Your task to perform on an android device: check storage Image 0: 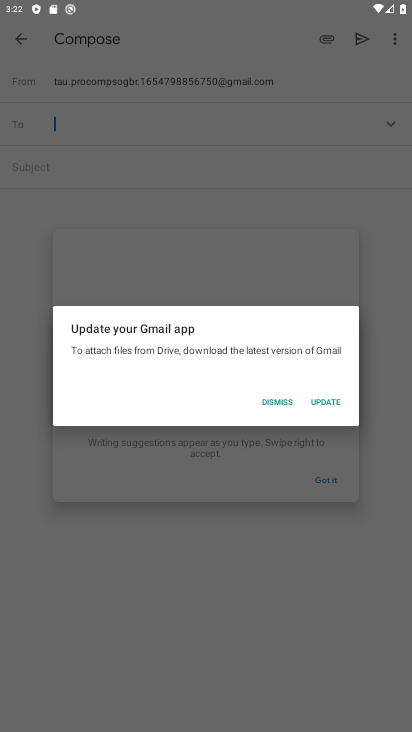
Step 0: press home button
Your task to perform on an android device: check storage Image 1: 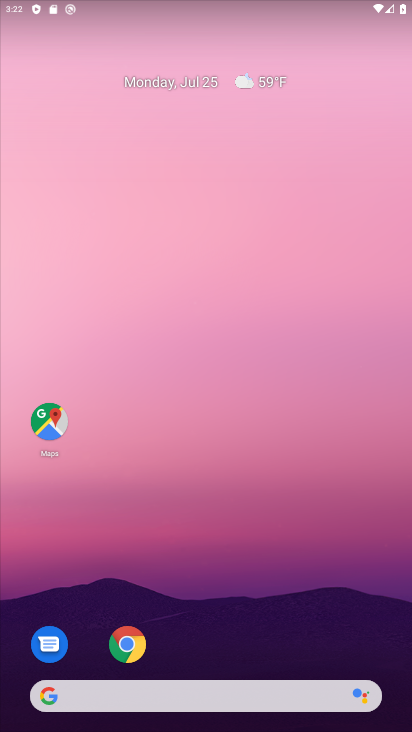
Step 1: drag from (253, 674) to (248, 212)
Your task to perform on an android device: check storage Image 2: 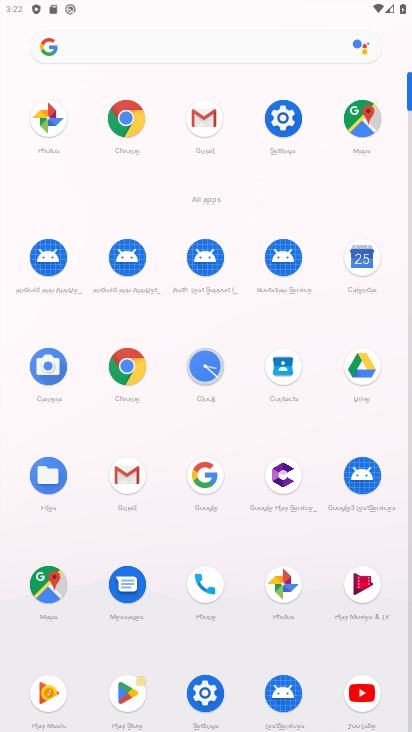
Step 2: click (287, 117)
Your task to perform on an android device: check storage Image 3: 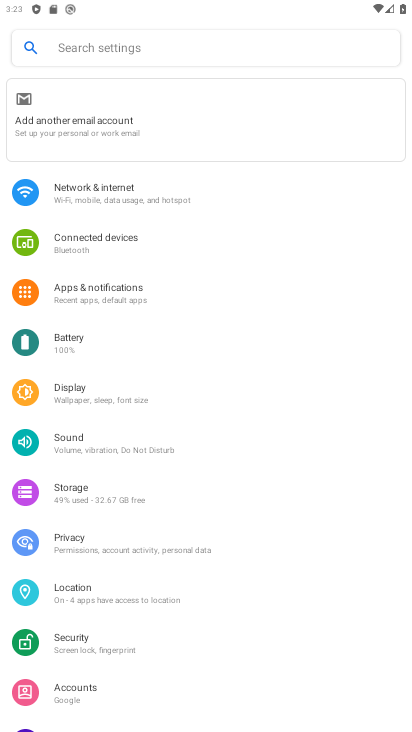
Step 3: click (75, 493)
Your task to perform on an android device: check storage Image 4: 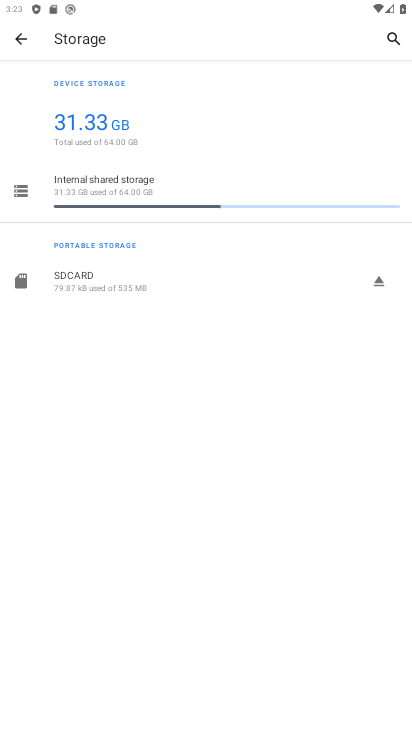
Step 4: task complete